Your task to perform on an android device: Set the phone to "Do not disturb". Image 0: 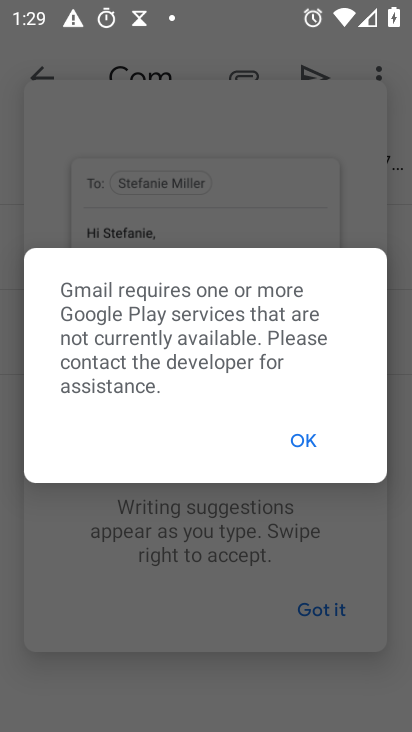
Step 0: press home button
Your task to perform on an android device: Set the phone to "Do not disturb". Image 1: 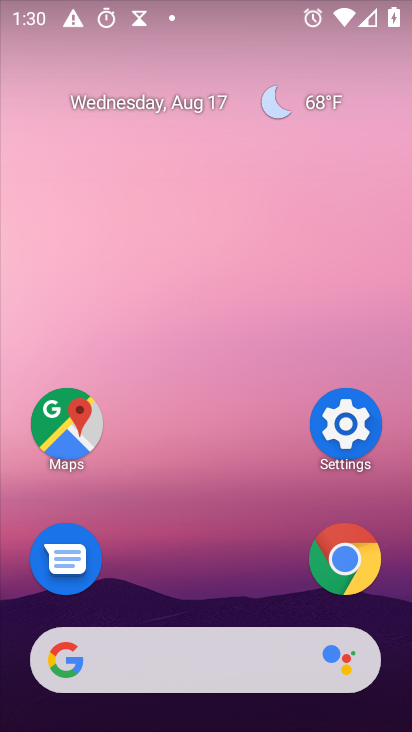
Step 1: click (342, 424)
Your task to perform on an android device: Set the phone to "Do not disturb". Image 2: 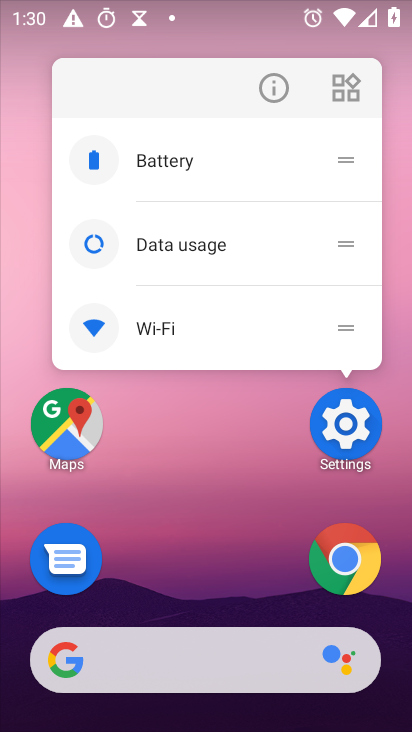
Step 2: click (344, 422)
Your task to perform on an android device: Set the phone to "Do not disturb". Image 3: 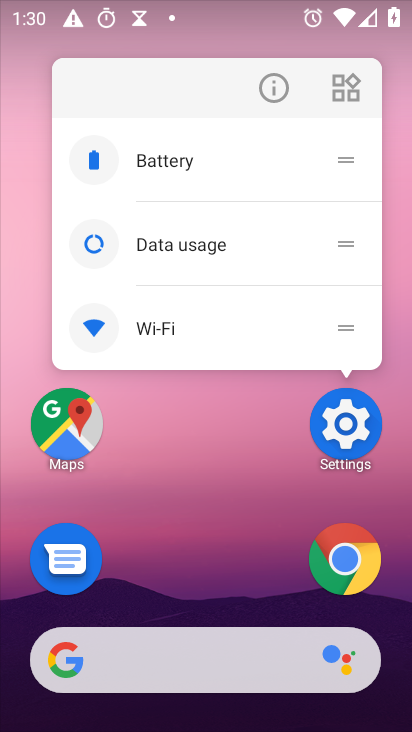
Step 3: click (344, 421)
Your task to perform on an android device: Set the phone to "Do not disturb". Image 4: 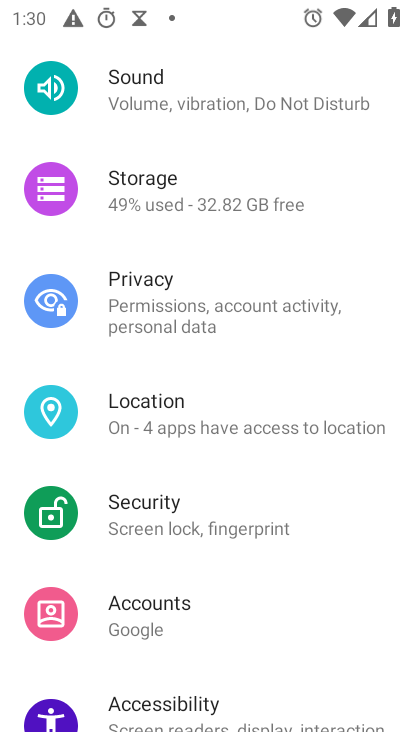
Step 4: click (179, 89)
Your task to perform on an android device: Set the phone to "Do not disturb". Image 5: 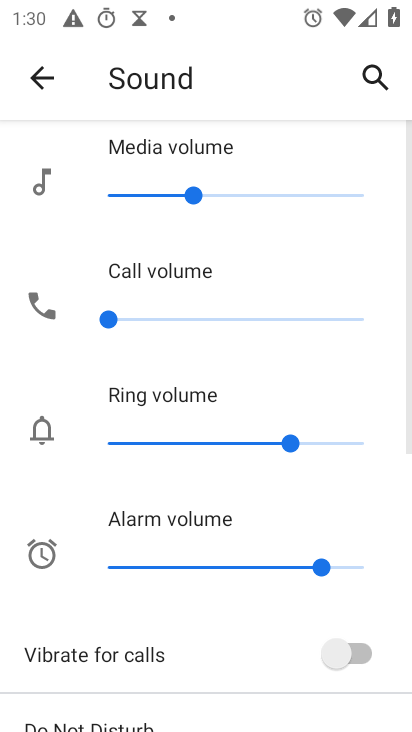
Step 5: drag from (213, 633) to (370, 127)
Your task to perform on an android device: Set the phone to "Do not disturb". Image 6: 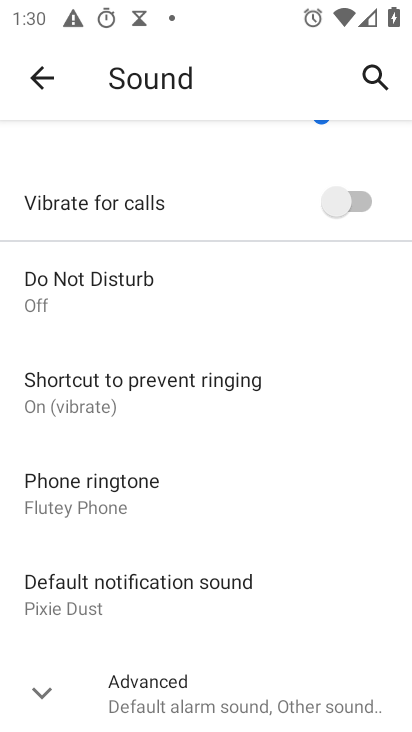
Step 6: click (77, 280)
Your task to perform on an android device: Set the phone to "Do not disturb". Image 7: 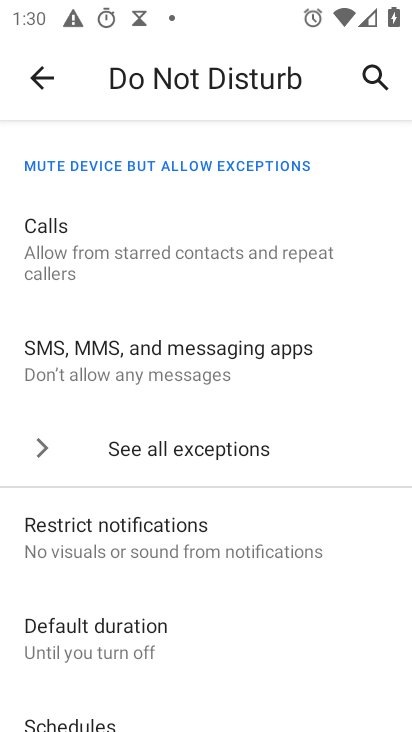
Step 7: drag from (189, 614) to (355, 82)
Your task to perform on an android device: Set the phone to "Do not disturb". Image 8: 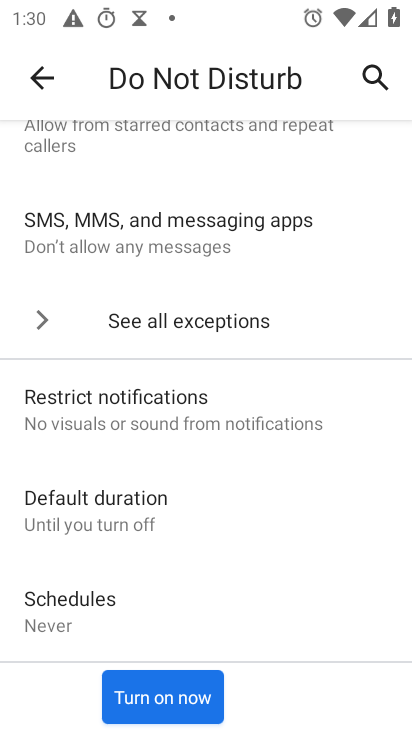
Step 8: click (163, 697)
Your task to perform on an android device: Set the phone to "Do not disturb". Image 9: 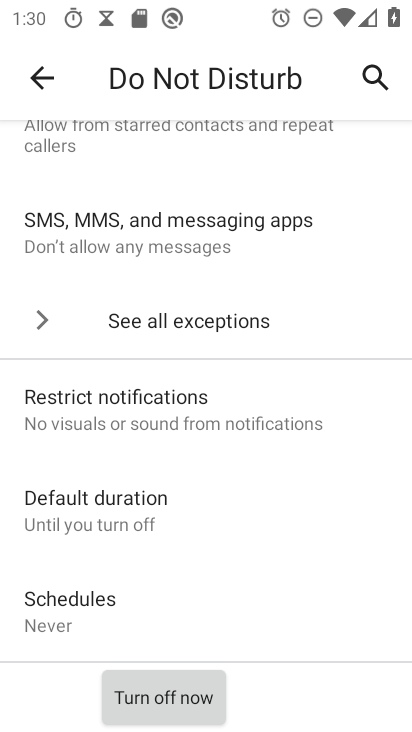
Step 9: task complete